Your task to perform on an android device: Turn off the flashlight Image 0: 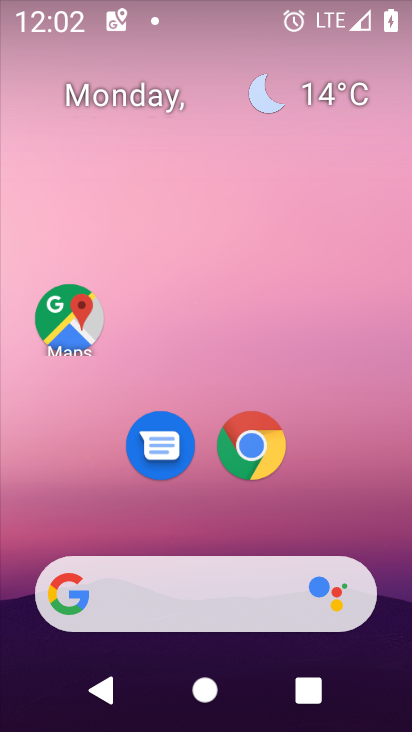
Step 0: drag from (205, 542) to (214, 188)
Your task to perform on an android device: Turn off the flashlight Image 1: 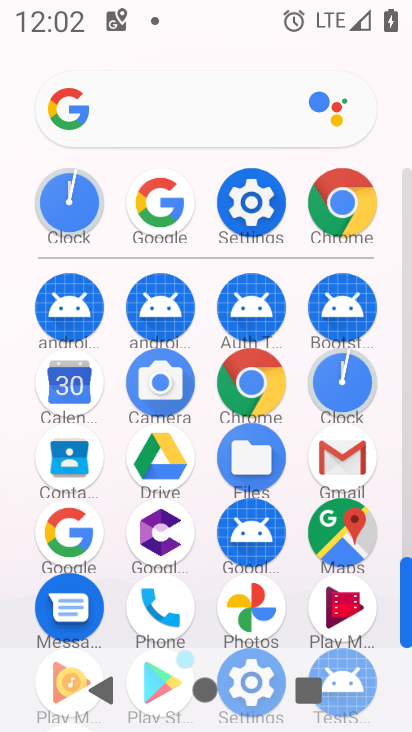
Step 1: click (249, 203)
Your task to perform on an android device: Turn off the flashlight Image 2: 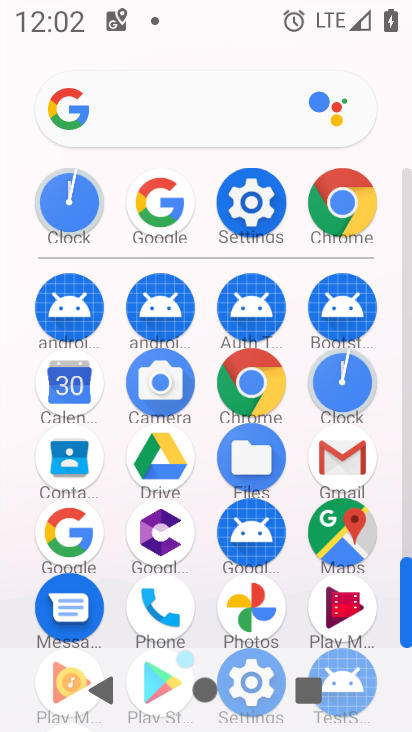
Step 2: click (249, 203)
Your task to perform on an android device: Turn off the flashlight Image 3: 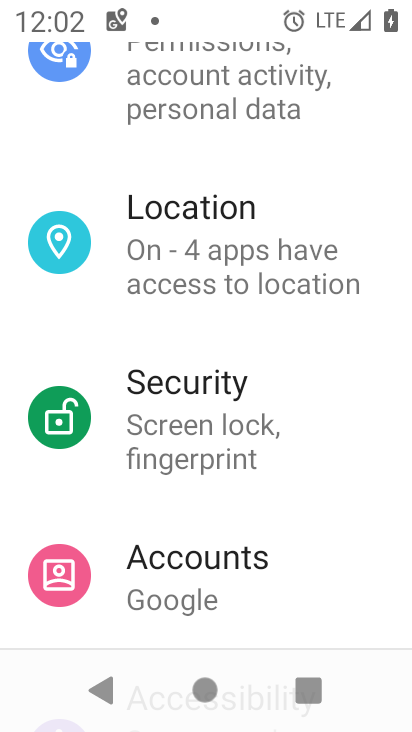
Step 3: drag from (235, 269) to (409, 493)
Your task to perform on an android device: Turn off the flashlight Image 4: 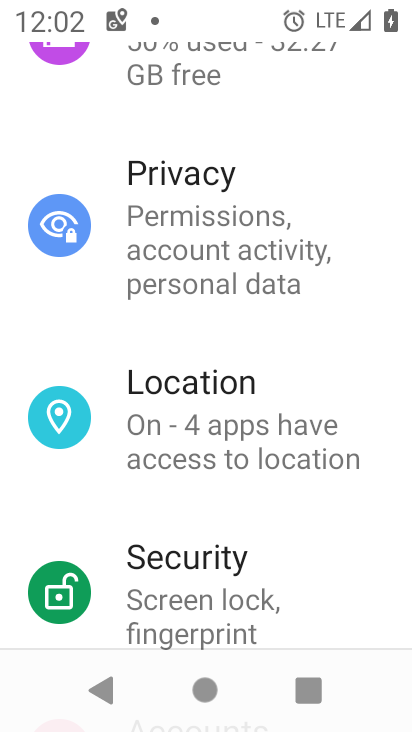
Step 4: drag from (184, 105) to (326, 658)
Your task to perform on an android device: Turn off the flashlight Image 5: 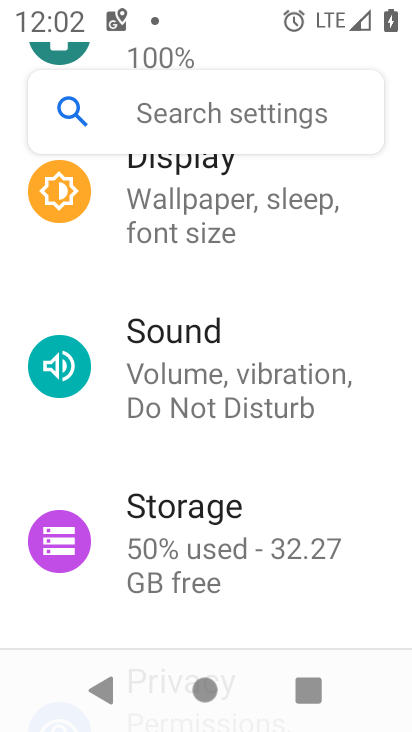
Step 5: click (181, 99)
Your task to perform on an android device: Turn off the flashlight Image 6: 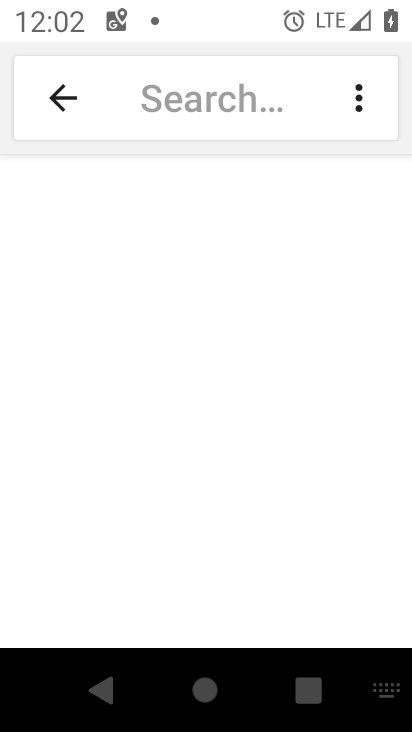
Step 6: type "flashlight"
Your task to perform on an android device: Turn off the flashlight Image 7: 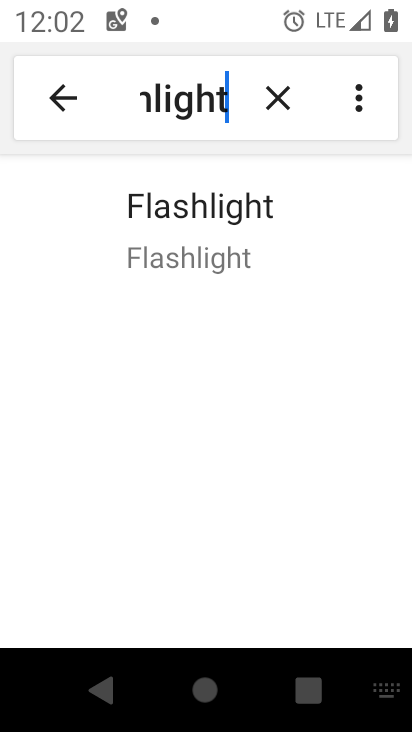
Step 7: click (153, 211)
Your task to perform on an android device: Turn off the flashlight Image 8: 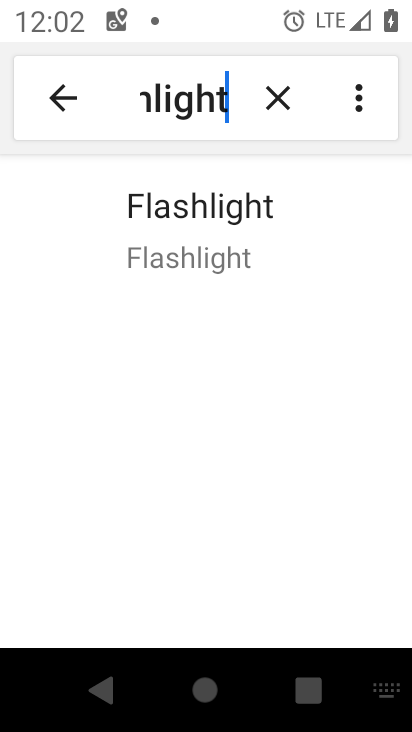
Step 8: task complete